Your task to perform on an android device: turn on data saver in the chrome app Image 0: 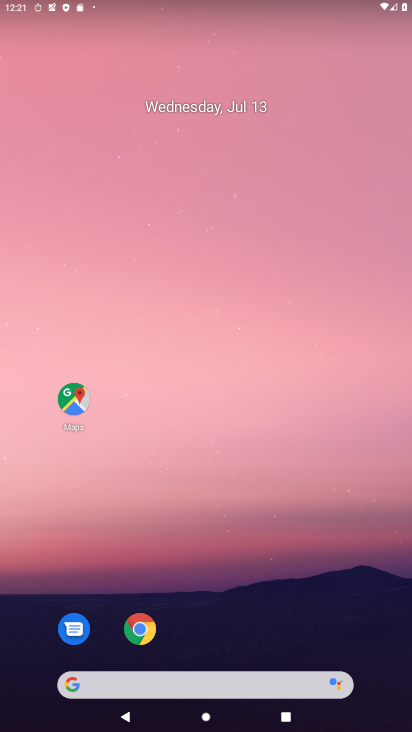
Step 0: click (152, 630)
Your task to perform on an android device: turn on data saver in the chrome app Image 1: 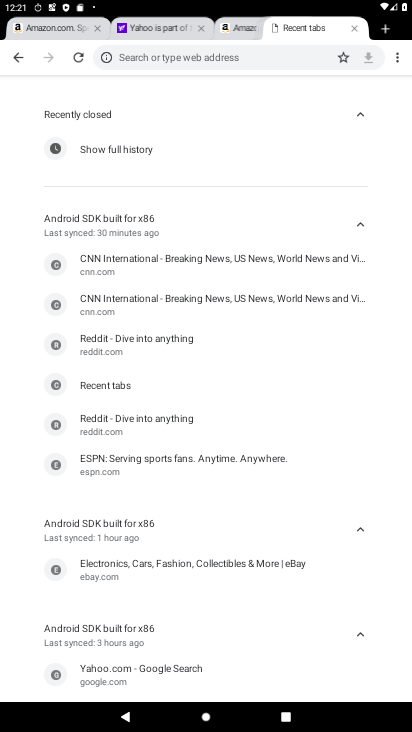
Step 1: click (393, 53)
Your task to perform on an android device: turn on data saver in the chrome app Image 2: 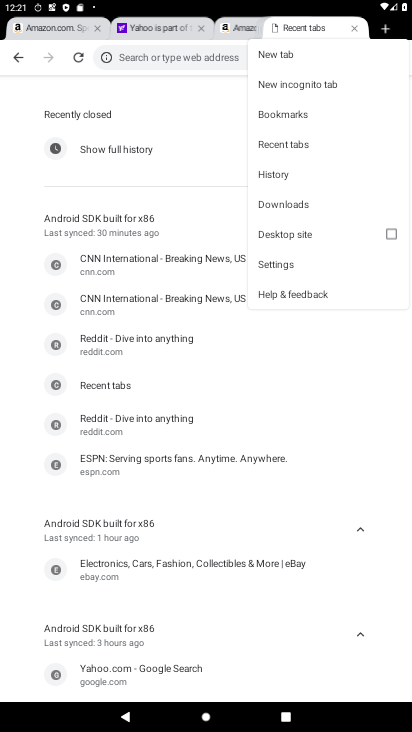
Step 2: click (286, 266)
Your task to perform on an android device: turn on data saver in the chrome app Image 3: 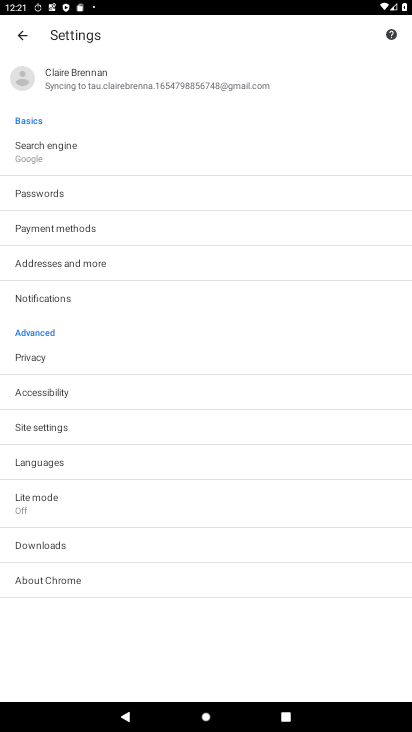
Step 3: click (77, 495)
Your task to perform on an android device: turn on data saver in the chrome app Image 4: 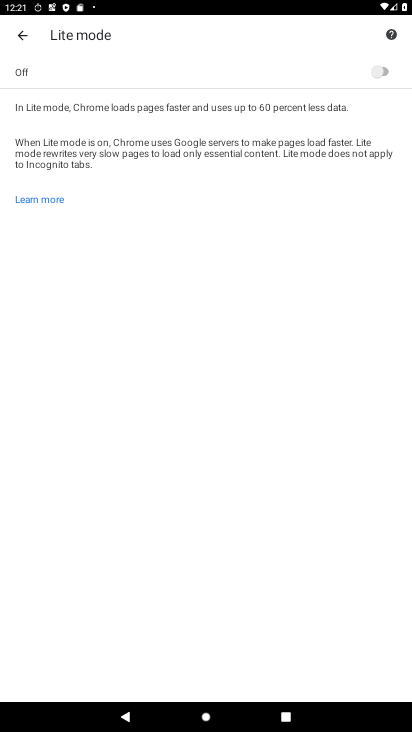
Step 4: click (375, 69)
Your task to perform on an android device: turn on data saver in the chrome app Image 5: 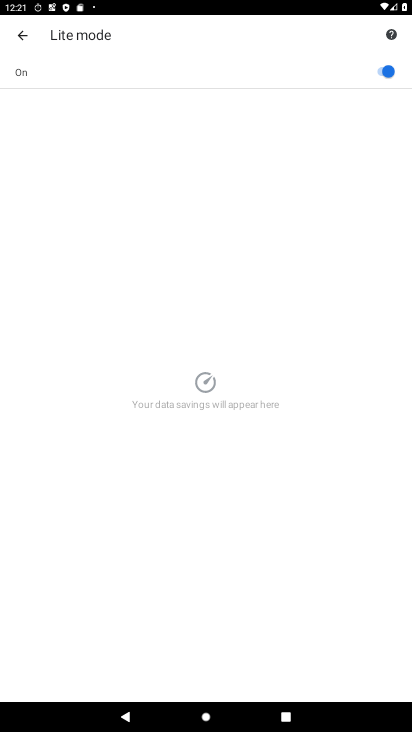
Step 5: task complete